Your task to perform on an android device: Open calendar and show me the second week of next month Image 0: 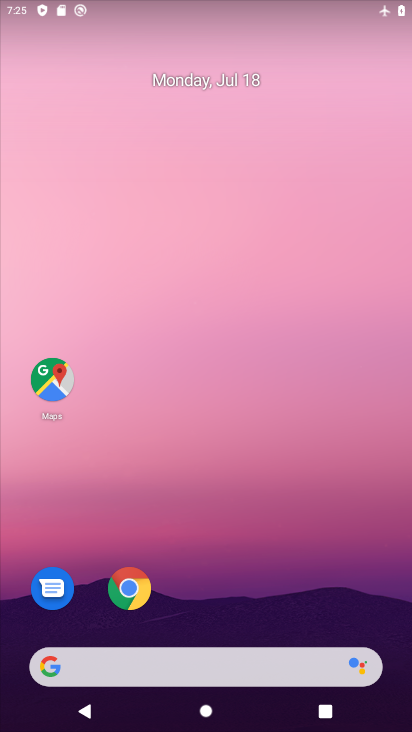
Step 0: drag from (233, 628) to (280, 29)
Your task to perform on an android device: Open calendar and show me the second week of next month Image 1: 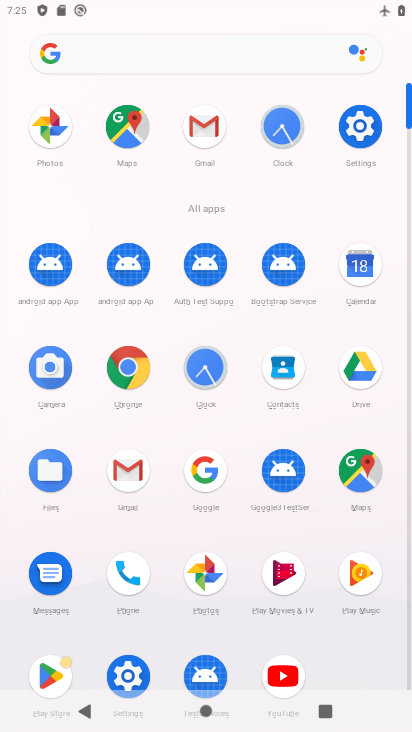
Step 1: click (367, 281)
Your task to perform on an android device: Open calendar and show me the second week of next month Image 2: 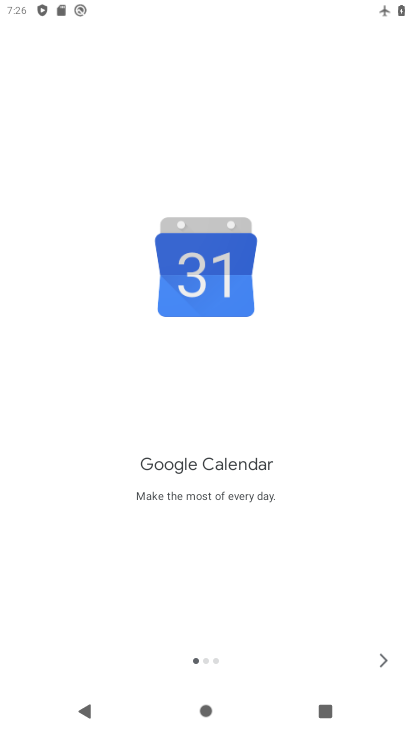
Step 2: click (388, 658)
Your task to perform on an android device: Open calendar and show me the second week of next month Image 3: 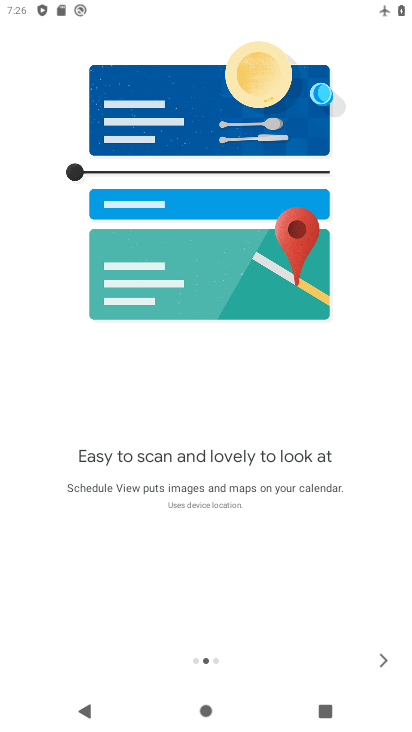
Step 3: click (383, 649)
Your task to perform on an android device: Open calendar and show me the second week of next month Image 4: 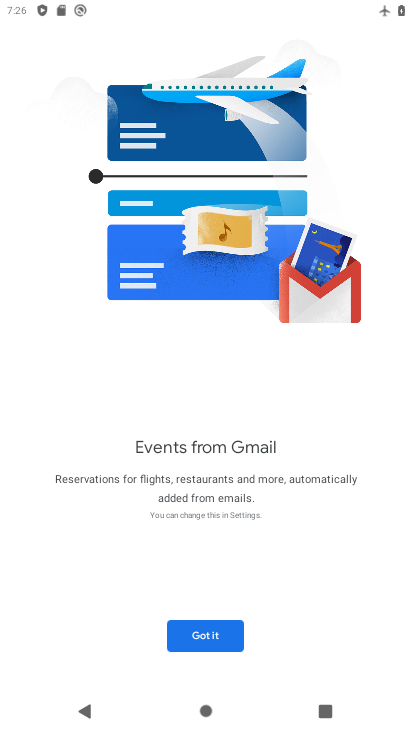
Step 4: click (196, 635)
Your task to perform on an android device: Open calendar and show me the second week of next month Image 5: 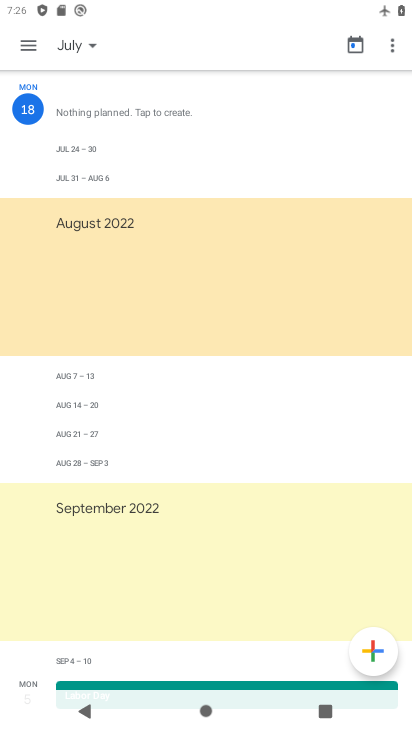
Step 5: click (21, 50)
Your task to perform on an android device: Open calendar and show me the second week of next month Image 6: 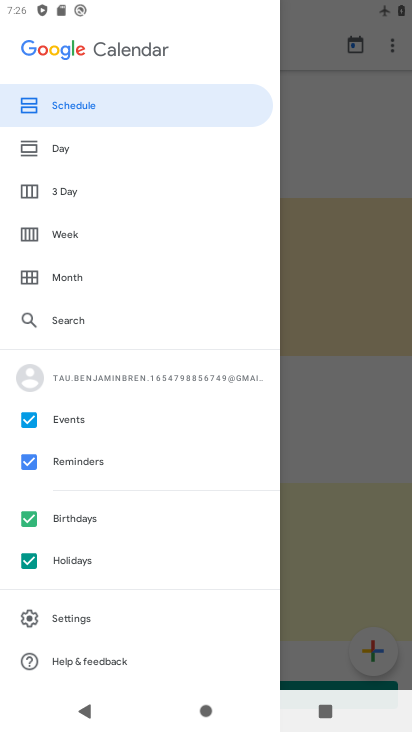
Step 6: click (64, 243)
Your task to perform on an android device: Open calendar and show me the second week of next month Image 7: 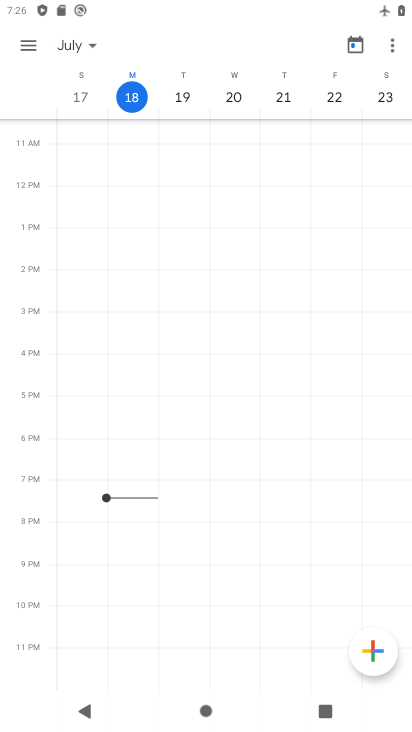
Step 7: click (72, 41)
Your task to perform on an android device: Open calendar and show me the second week of next month Image 8: 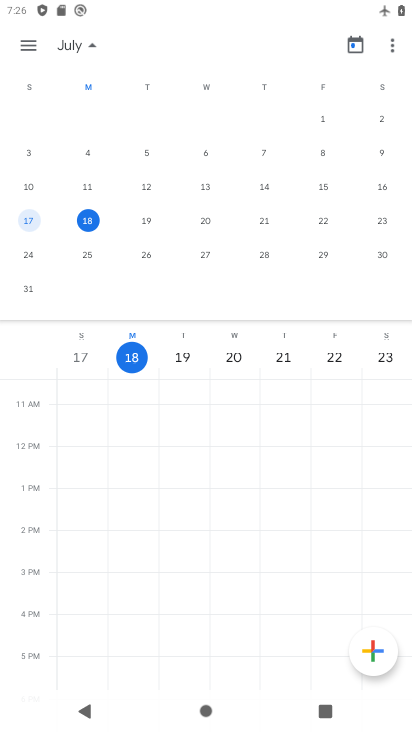
Step 8: drag from (320, 227) to (118, 199)
Your task to perform on an android device: Open calendar and show me the second week of next month Image 9: 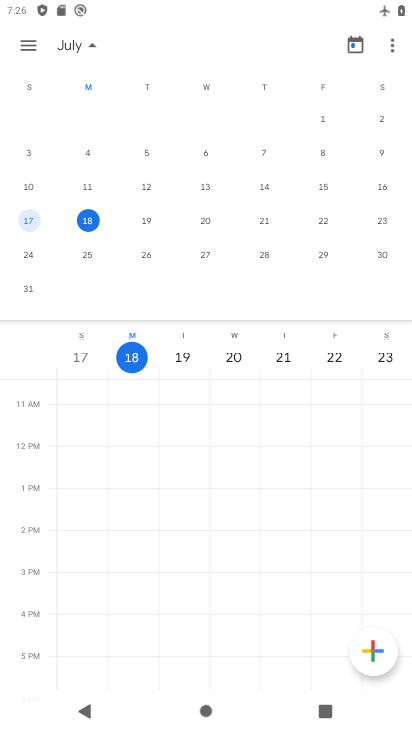
Step 9: drag from (349, 192) to (18, 111)
Your task to perform on an android device: Open calendar and show me the second week of next month Image 10: 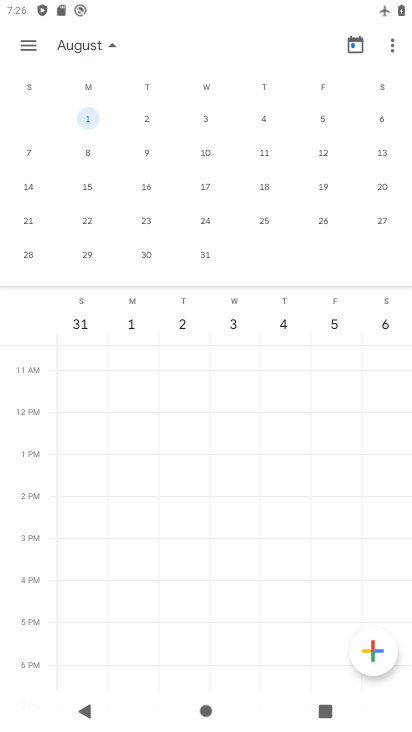
Step 10: click (151, 161)
Your task to perform on an android device: Open calendar and show me the second week of next month Image 11: 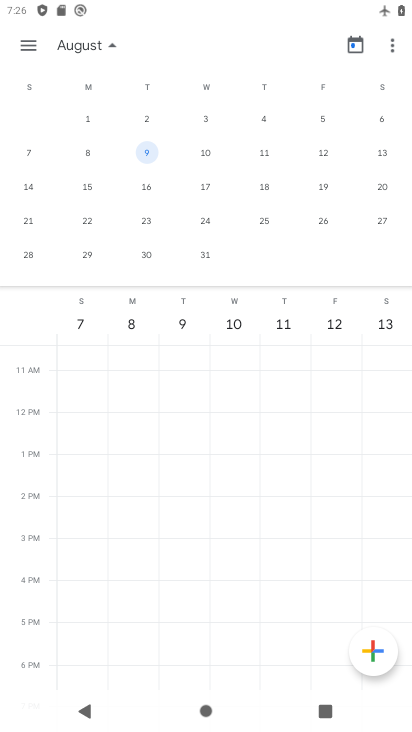
Step 11: click (27, 39)
Your task to perform on an android device: Open calendar and show me the second week of next month Image 12: 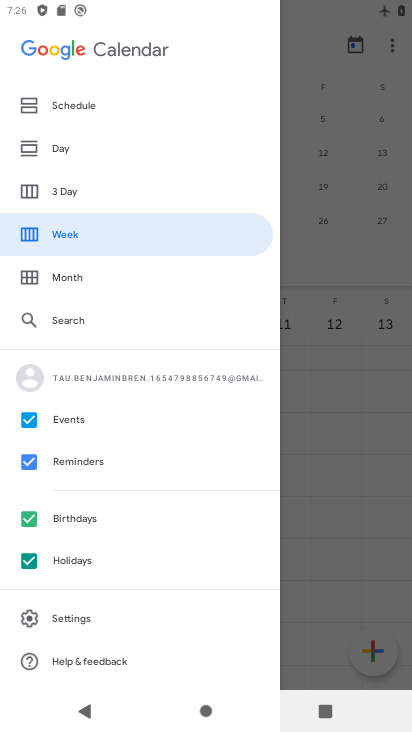
Step 12: click (78, 227)
Your task to perform on an android device: Open calendar and show me the second week of next month Image 13: 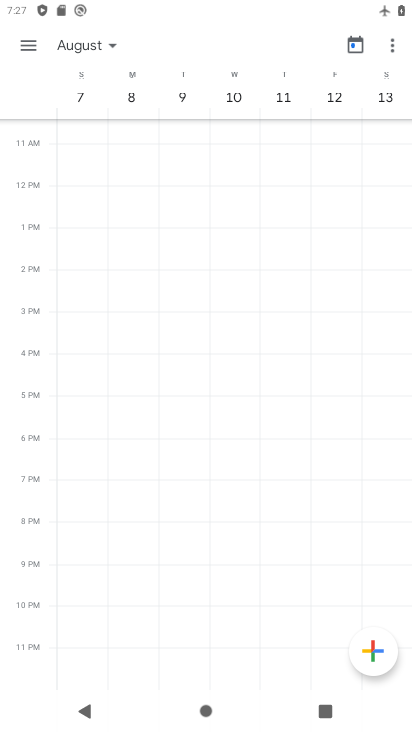
Step 13: task complete